Your task to perform on an android device: remove spam from my inbox in the gmail app Image 0: 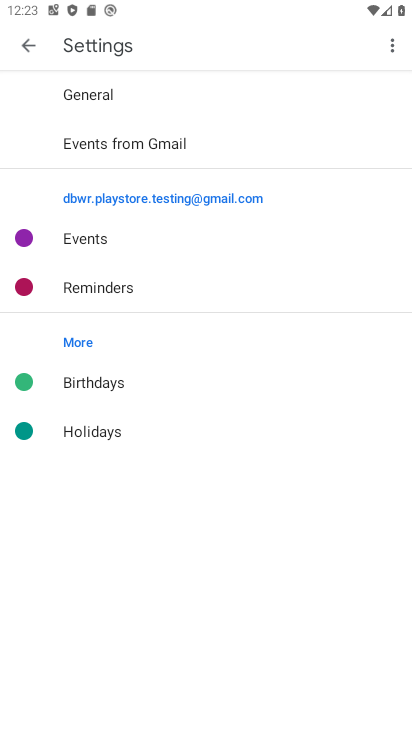
Step 0: press home button
Your task to perform on an android device: remove spam from my inbox in the gmail app Image 1: 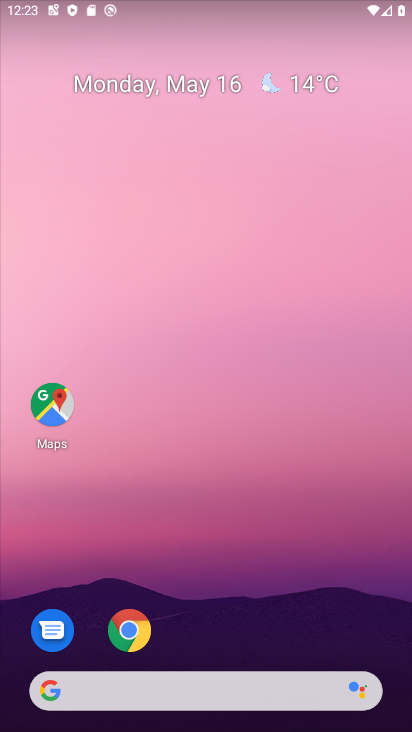
Step 1: drag from (289, 588) to (255, 81)
Your task to perform on an android device: remove spam from my inbox in the gmail app Image 2: 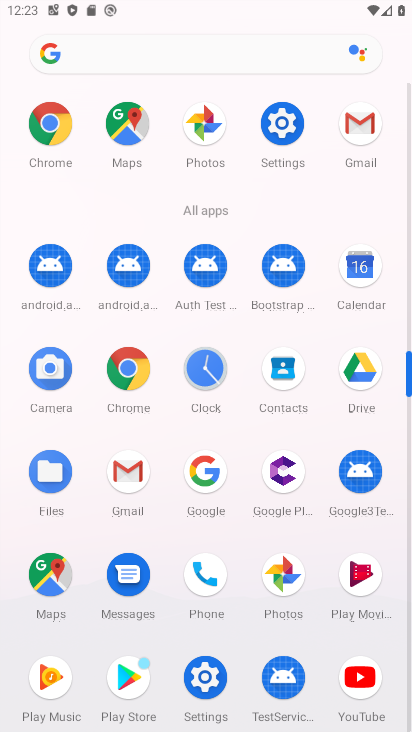
Step 2: click (130, 475)
Your task to perform on an android device: remove spam from my inbox in the gmail app Image 3: 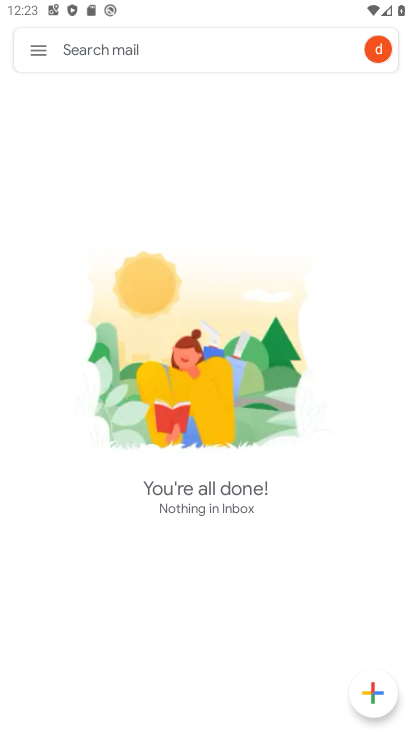
Step 3: click (36, 56)
Your task to perform on an android device: remove spam from my inbox in the gmail app Image 4: 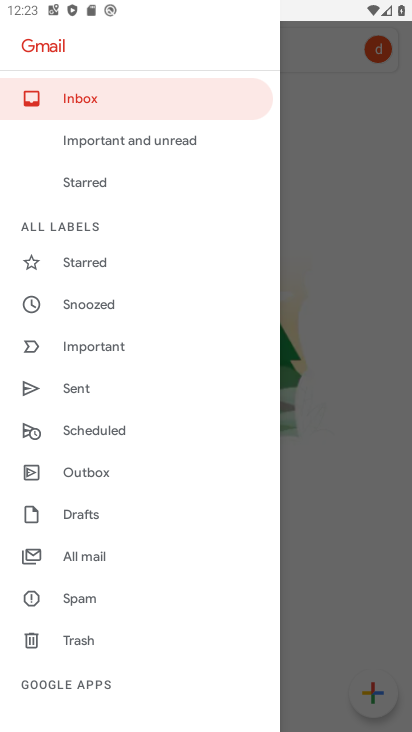
Step 4: drag from (94, 671) to (94, 430)
Your task to perform on an android device: remove spam from my inbox in the gmail app Image 5: 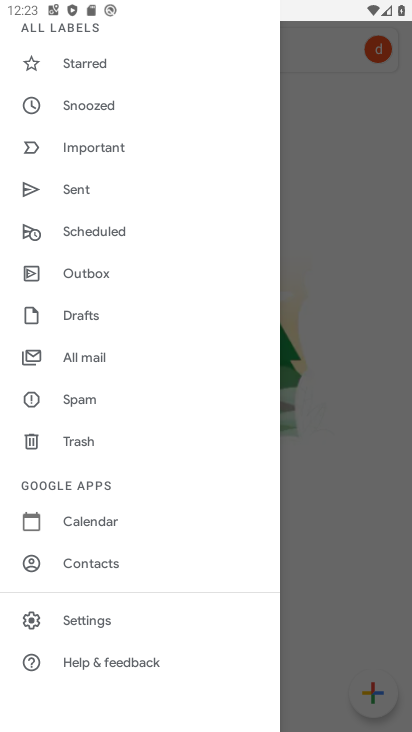
Step 5: click (83, 403)
Your task to perform on an android device: remove spam from my inbox in the gmail app Image 6: 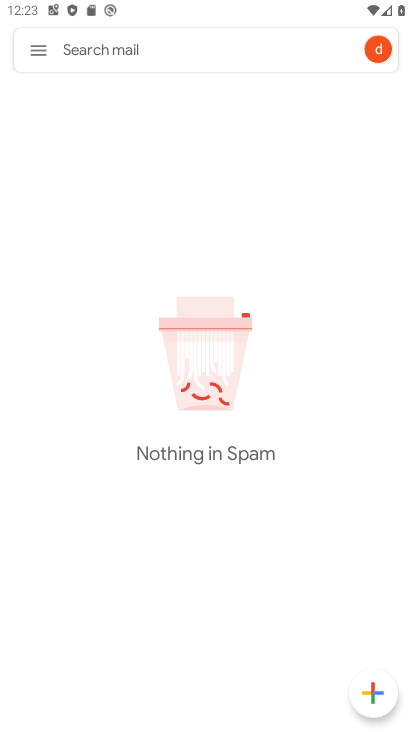
Step 6: task complete